Your task to perform on an android device: open device folders in google photos Image 0: 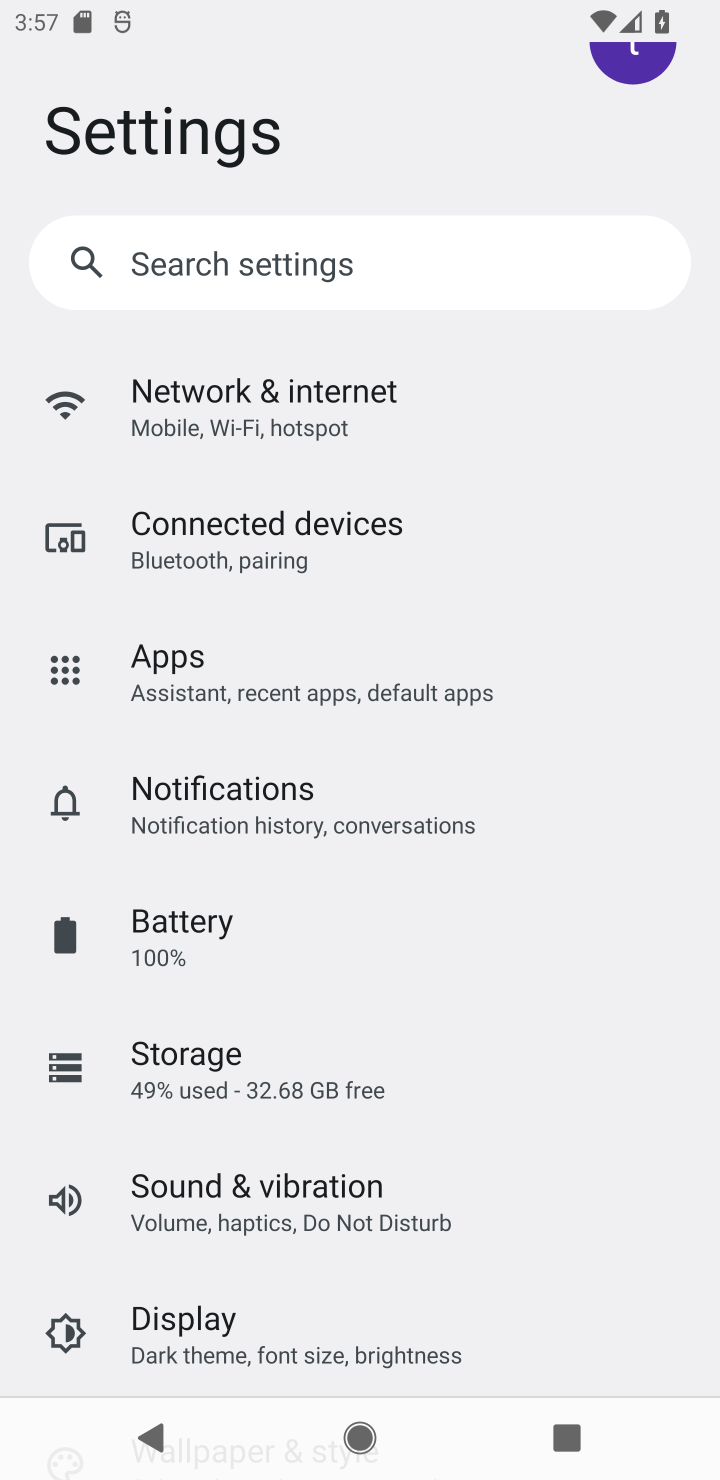
Step 0: press home button
Your task to perform on an android device: open device folders in google photos Image 1: 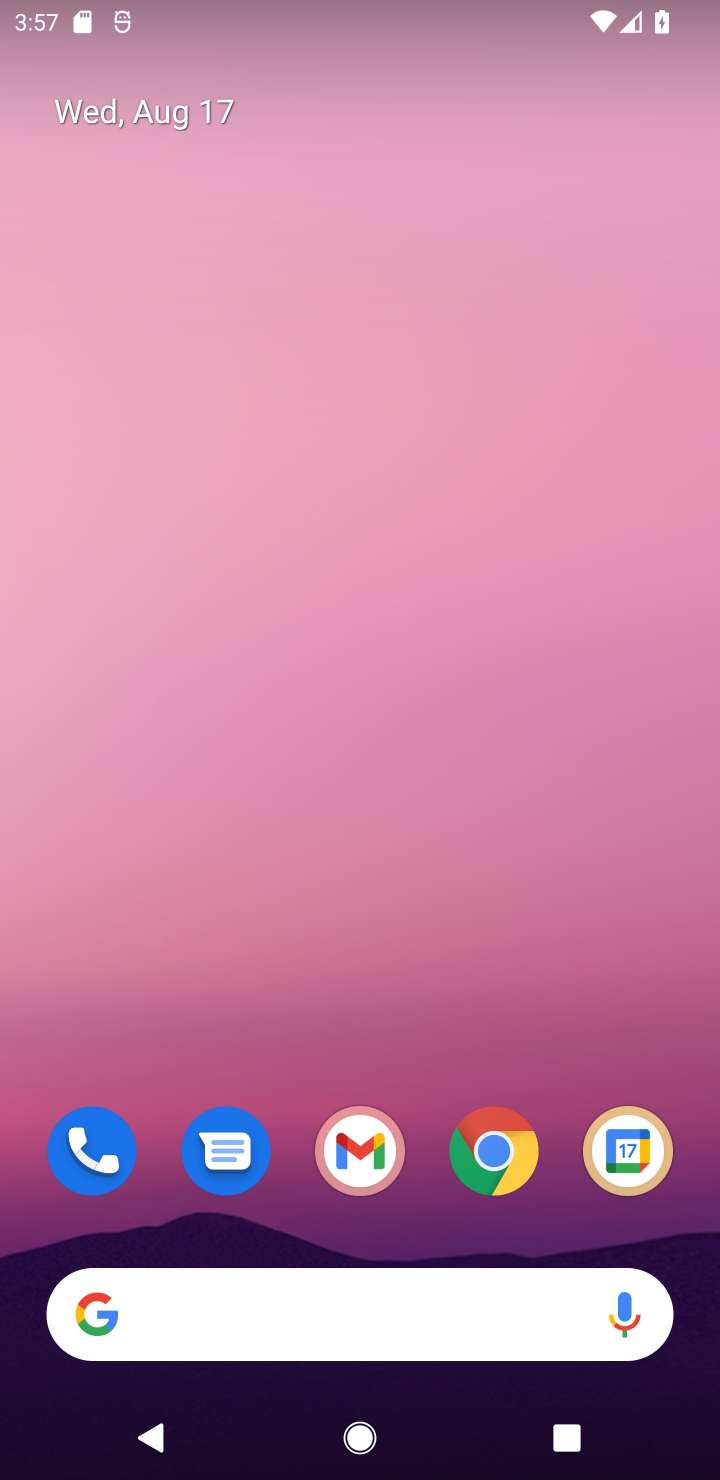
Step 1: drag from (431, 1229) to (328, 338)
Your task to perform on an android device: open device folders in google photos Image 2: 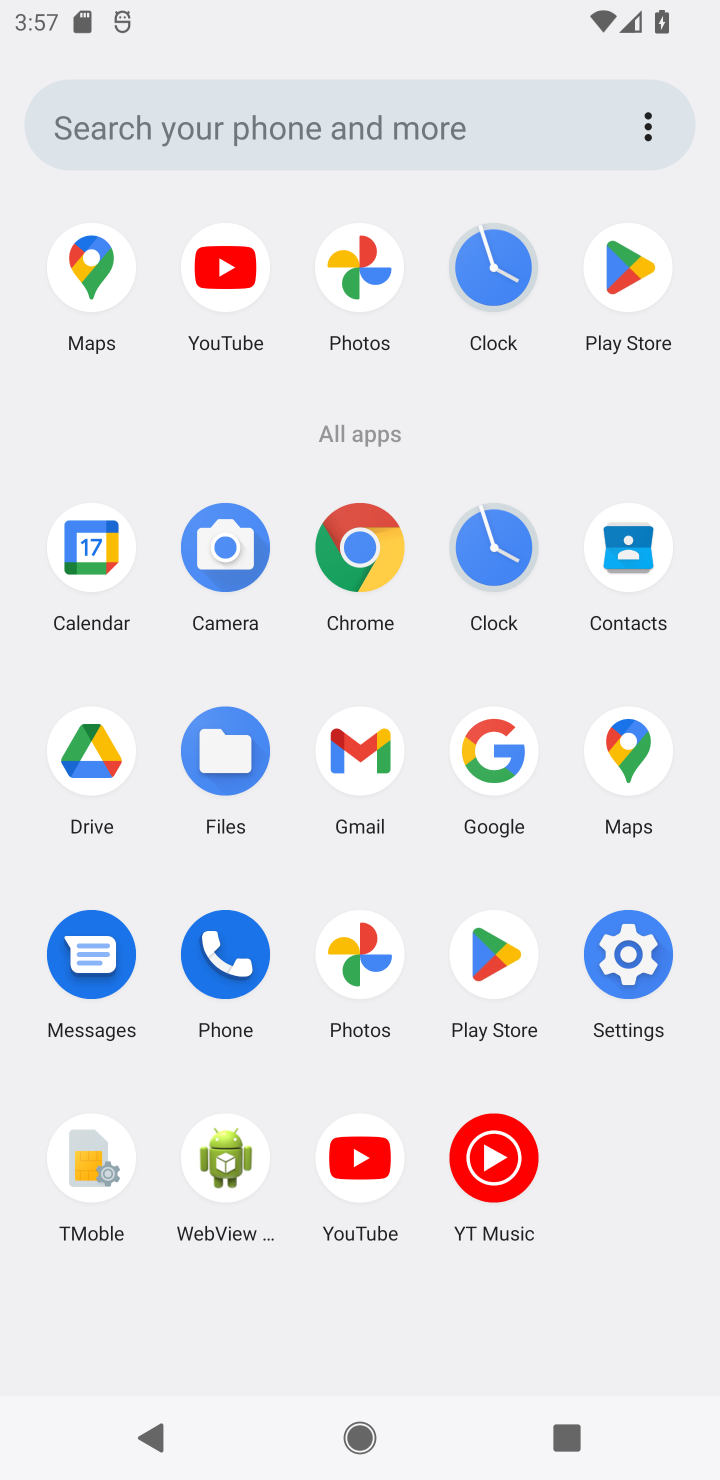
Step 2: click (351, 290)
Your task to perform on an android device: open device folders in google photos Image 3: 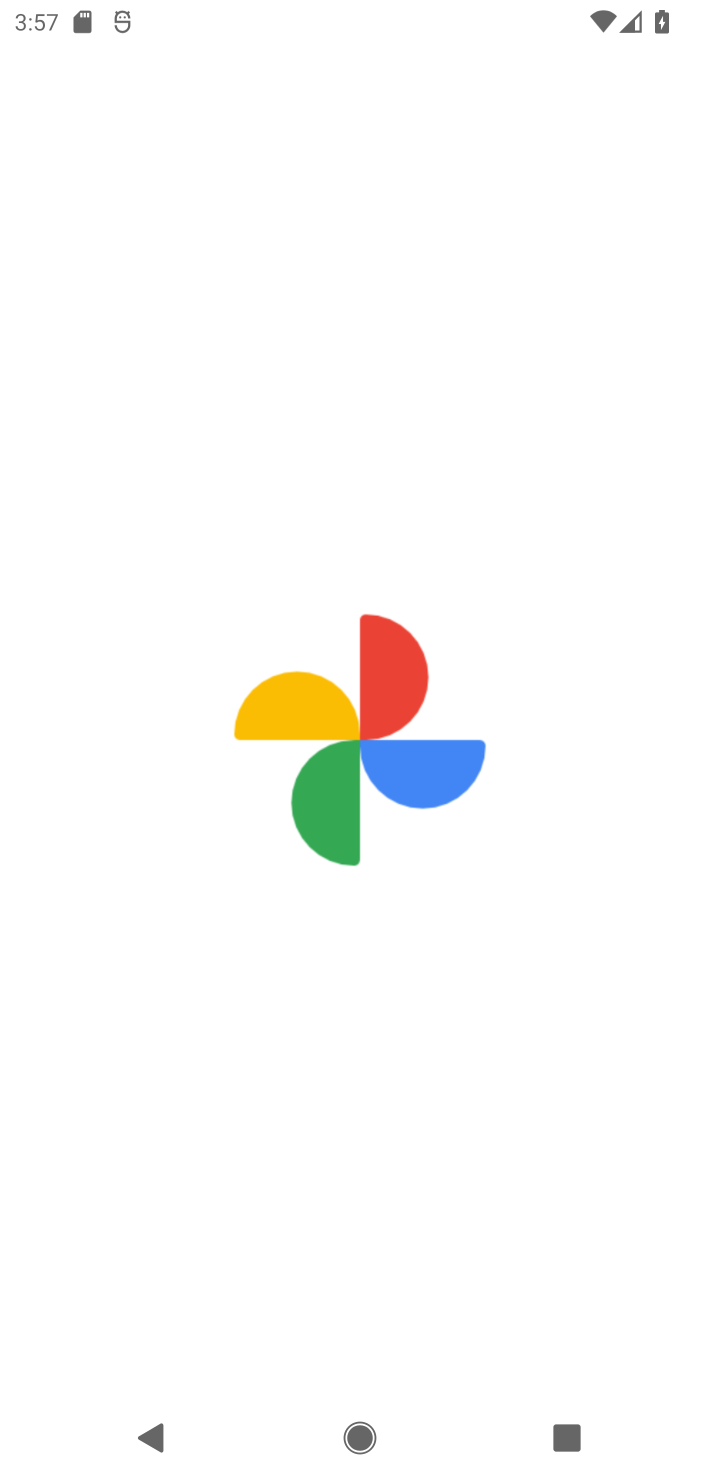
Step 3: task complete